Your task to perform on an android device: Show me the alarms in the clock app Image 0: 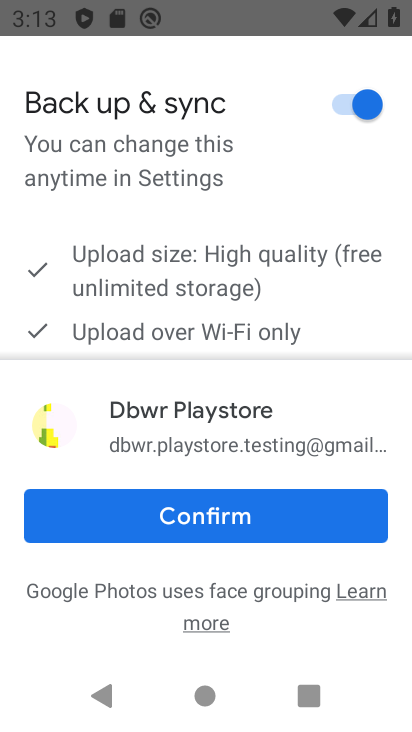
Step 0: press home button
Your task to perform on an android device: Show me the alarms in the clock app Image 1: 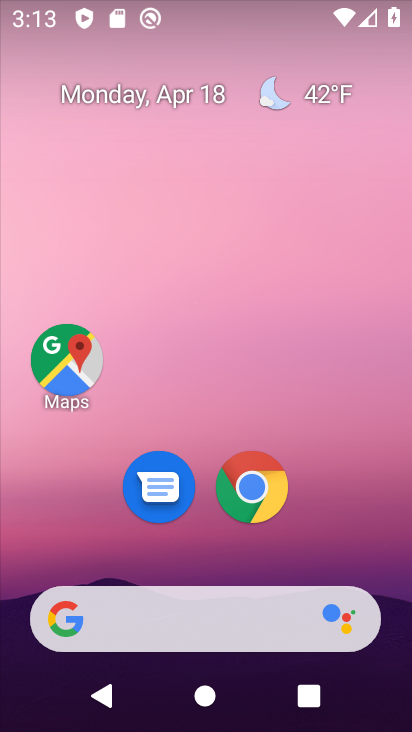
Step 1: drag from (224, 231) to (221, 156)
Your task to perform on an android device: Show me the alarms in the clock app Image 2: 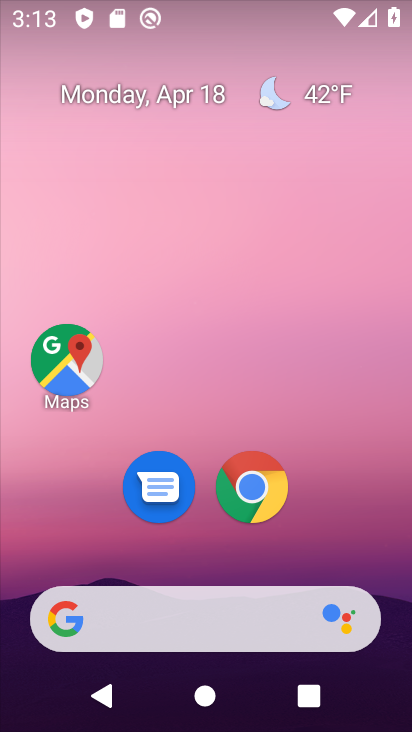
Step 2: drag from (215, 499) to (193, 1)
Your task to perform on an android device: Show me the alarms in the clock app Image 3: 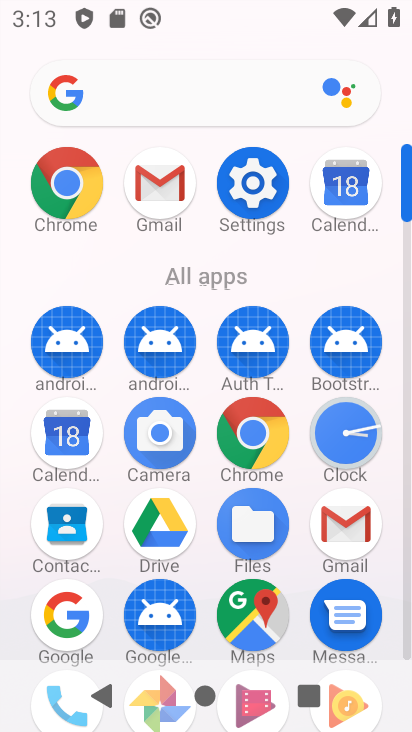
Step 3: click (345, 411)
Your task to perform on an android device: Show me the alarms in the clock app Image 4: 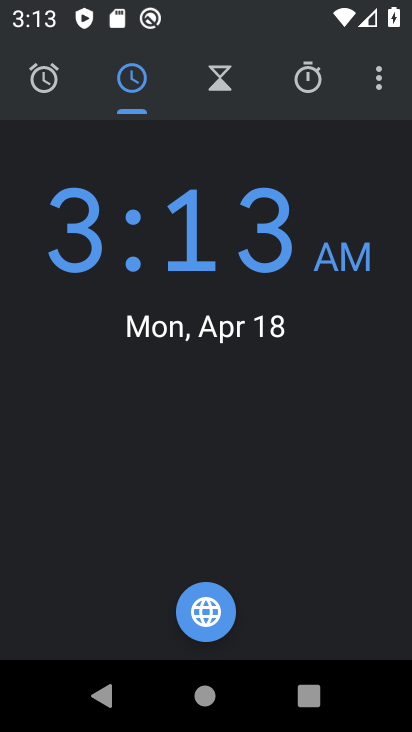
Step 4: click (43, 83)
Your task to perform on an android device: Show me the alarms in the clock app Image 5: 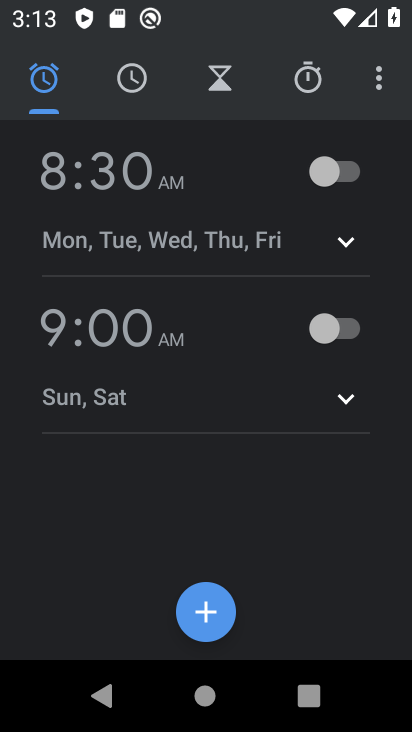
Step 5: task complete